Your task to perform on an android device: Open CNN.com Image 0: 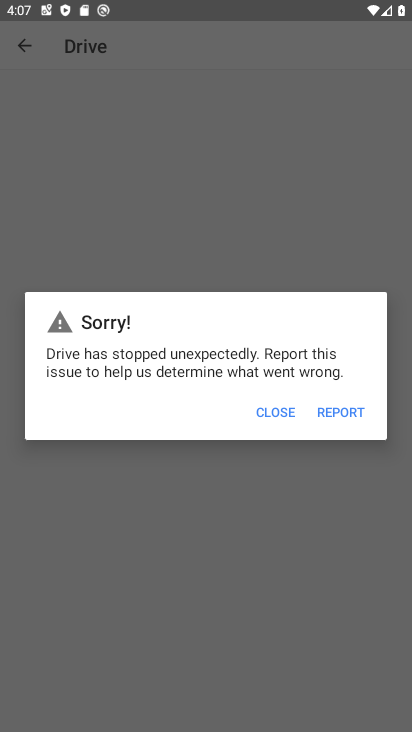
Step 0: press back button
Your task to perform on an android device: Open CNN.com Image 1: 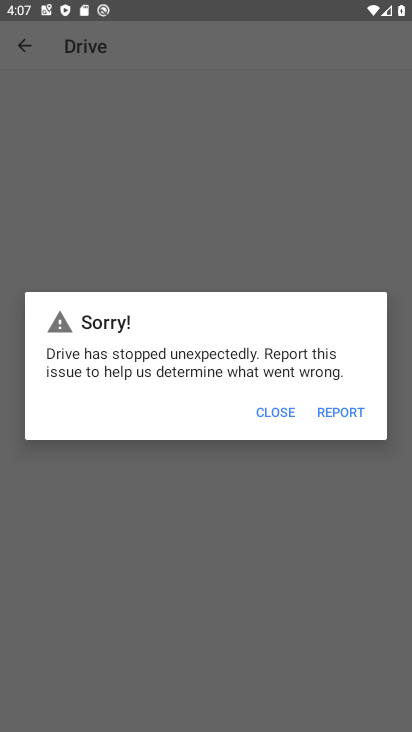
Step 1: press back button
Your task to perform on an android device: Open CNN.com Image 2: 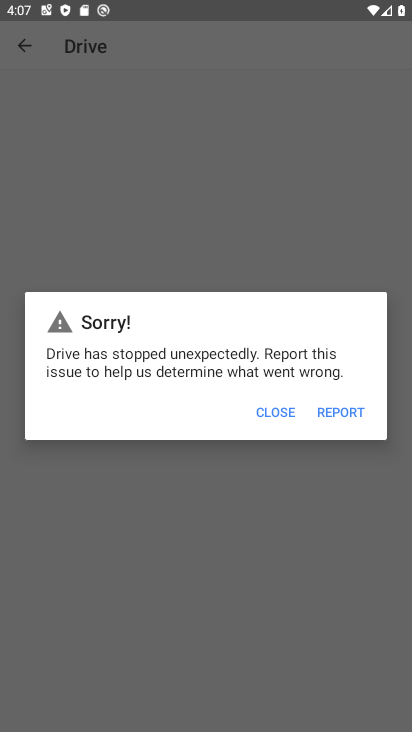
Step 2: press home button
Your task to perform on an android device: Open CNN.com Image 3: 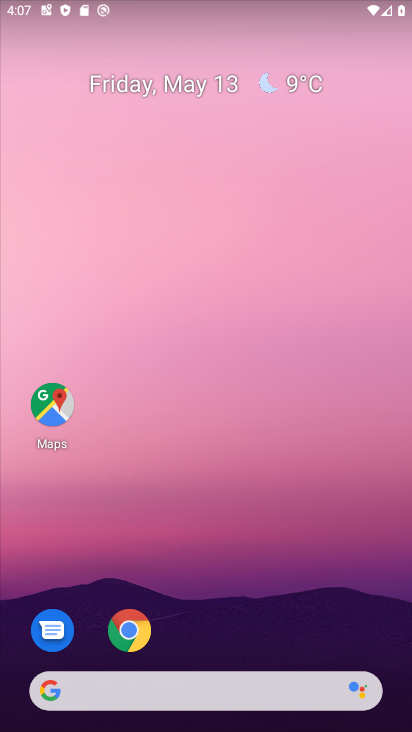
Step 3: drag from (252, 547) to (215, 75)
Your task to perform on an android device: Open CNN.com Image 4: 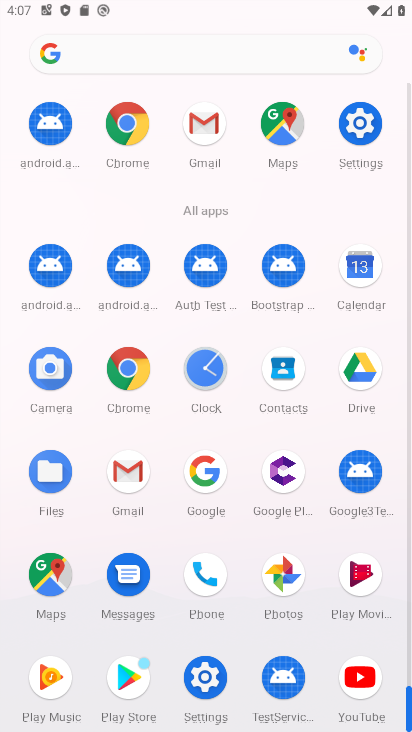
Step 4: click (124, 122)
Your task to perform on an android device: Open CNN.com Image 5: 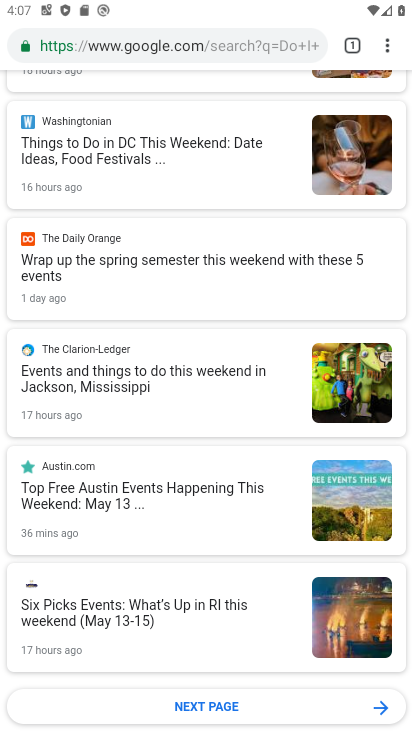
Step 5: drag from (172, 77) to (198, 446)
Your task to perform on an android device: Open CNN.com Image 6: 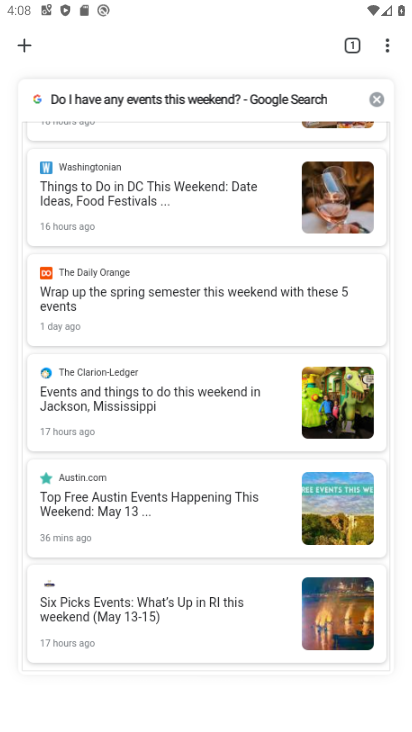
Step 6: click (87, 120)
Your task to perform on an android device: Open CNN.com Image 7: 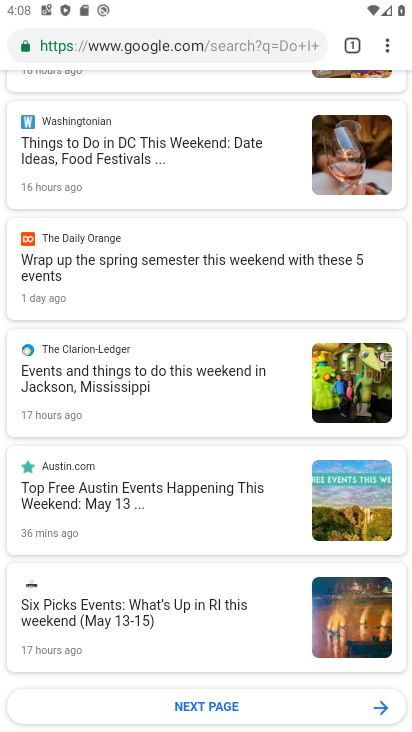
Step 7: click (117, 32)
Your task to perform on an android device: Open CNN.com Image 8: 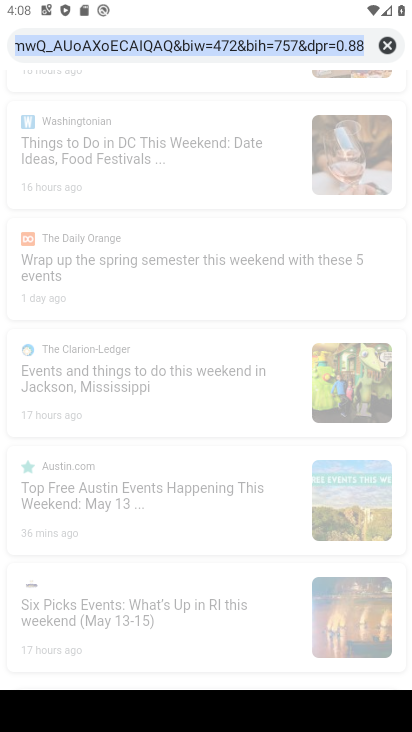
Step 8: click (380, 41)
Your task to perform on an android device: Open CNN.com Image 9: 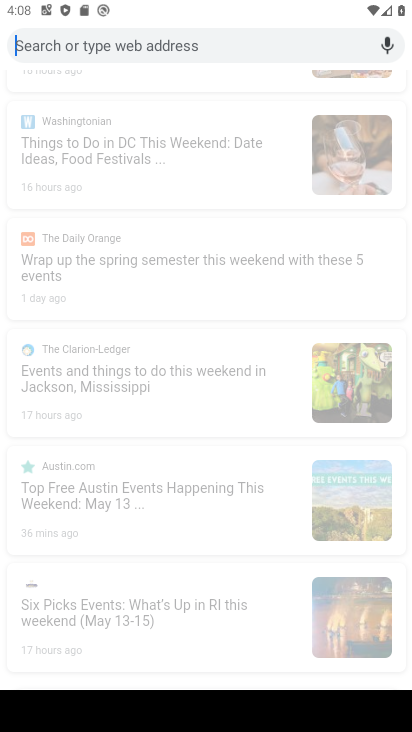
Step 9: type "CNN.com"
Your task to perform on an android device: Open CNN.com Image 10: 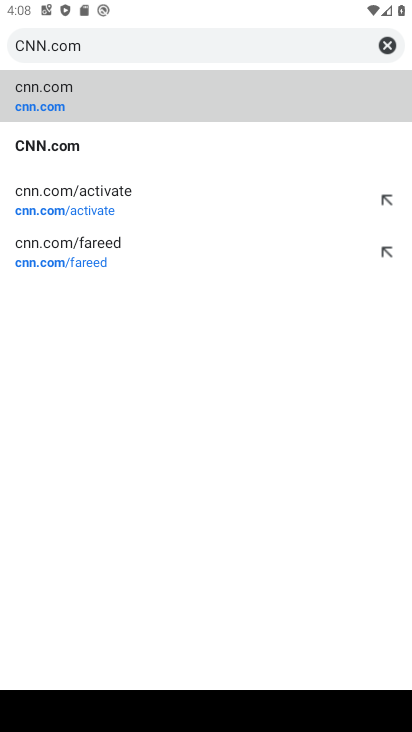
Step 10: click (81, 105)
Your task to perform on an android device: Open CNN.com Image 11: 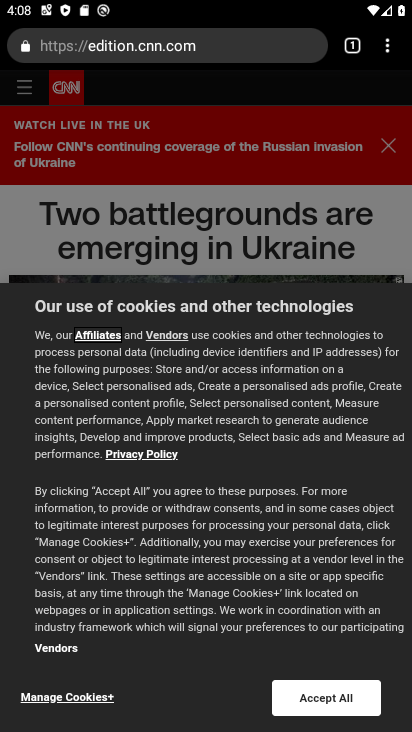
Step 11: click (303, 697)
Your task to perform on an android device: Open CNN.com Image 12: 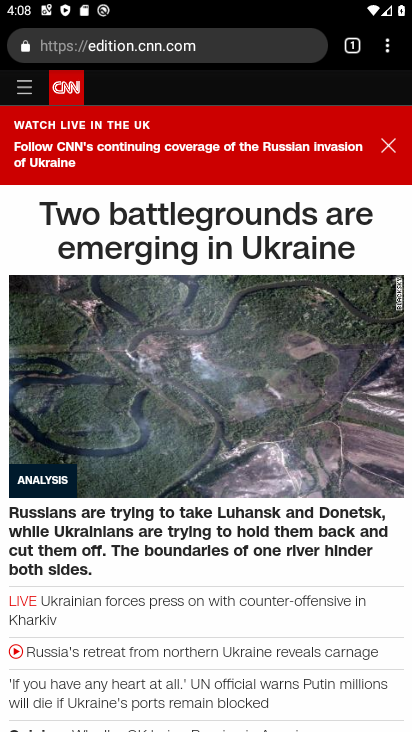
Step 12: task complete